Your task to perform on an android device: open the mobile data screen to see how much data has been used Image 0: 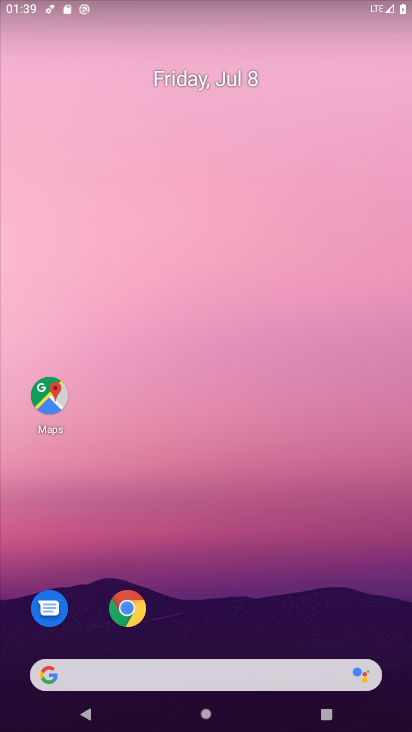
Step 0: drag from (295, 613) to (254, 278)
Your task to perform on an android device: open the mobile data screen to see how much data has been used Image 1: 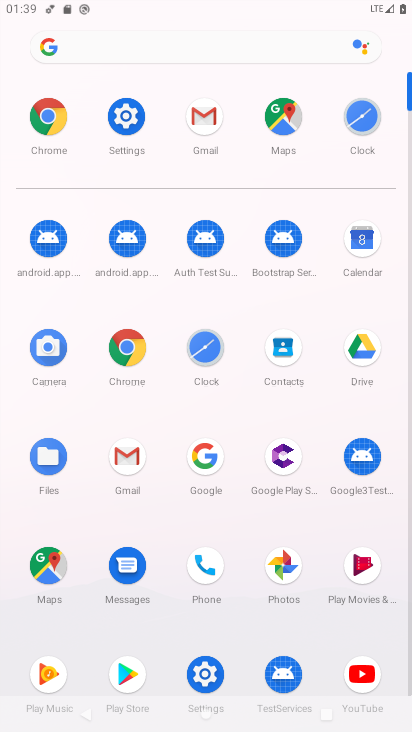
Step 1: click (135, 118)
Your task to perform on an android device: open the mobile data screen to see how much data has been used Image 2: 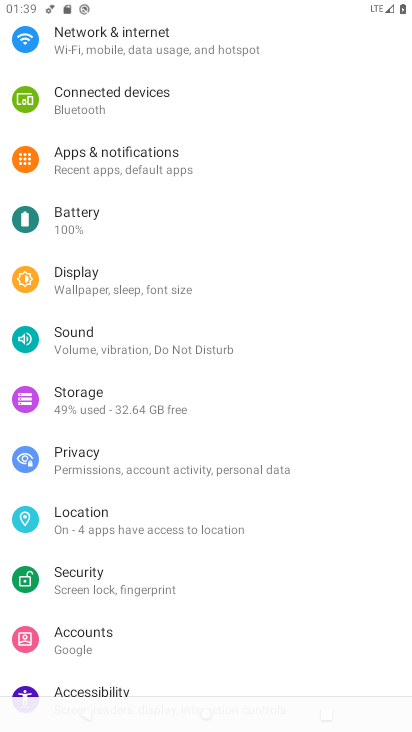
Step 2: click (166, 37)
Your task to perform on an android device: open the mobile data screen to see how much data has been used Image 3: 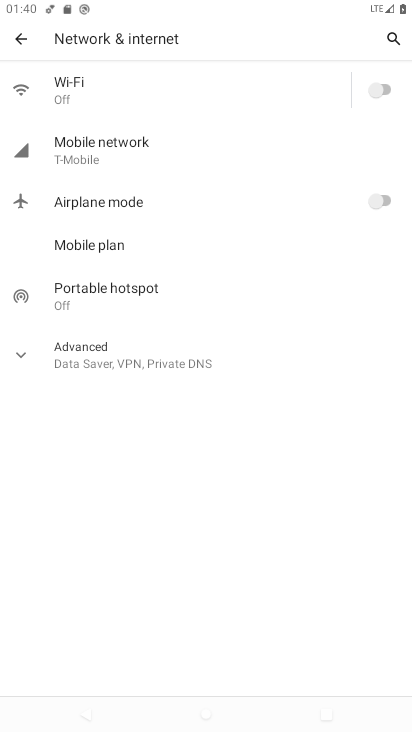
Step 3: click (127, 145)
Your task to perform on an android device: open the mobile data screen to see how much data has been used Image 4: 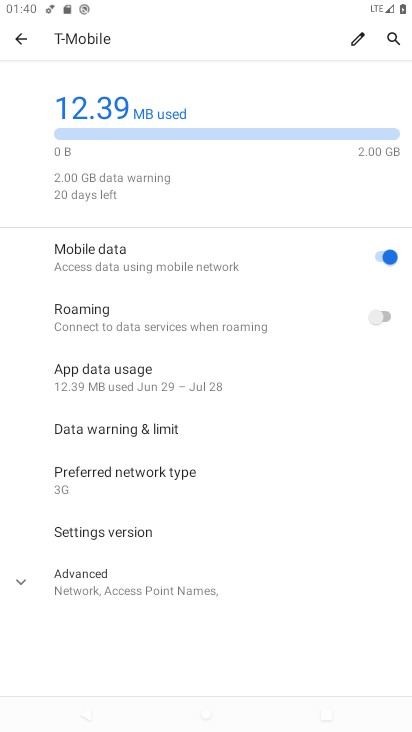
Step 4: task complete